Your task to perform on an android device: Go to settings Image 0: 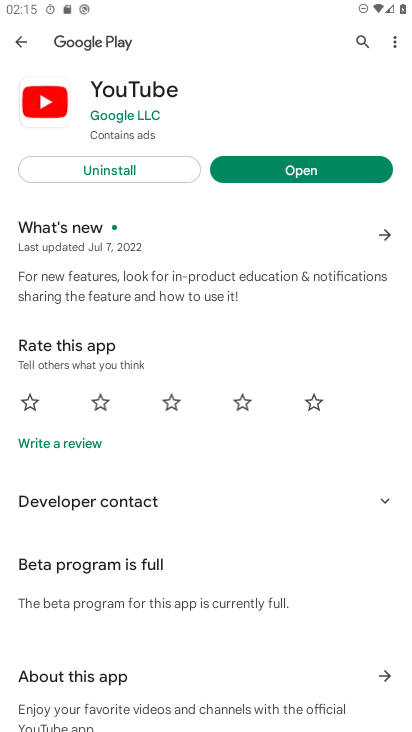
Step 0: press home button
Your task to perform on an android device: Go to settings Image 1: 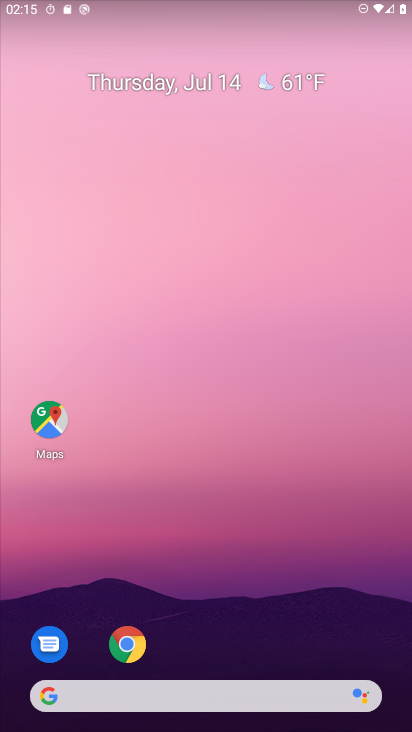
Step 1: drag from (306, 601) to (246, 56)
Your task to perform on an android device: Go to settings Image 2: 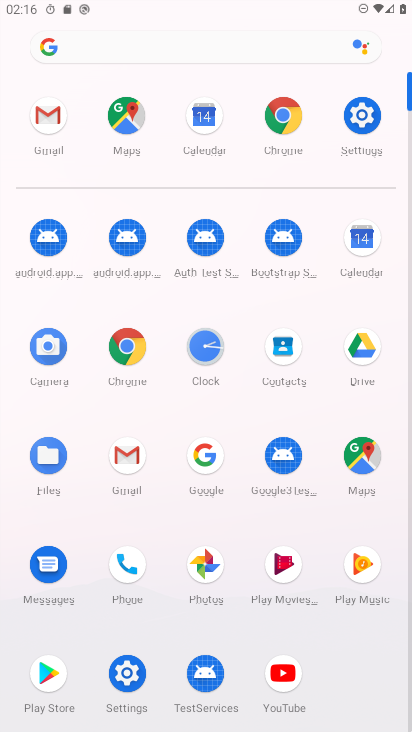
Step 2: click (362, 113)
Your task to perform on an android device: Go to settings Image 3: 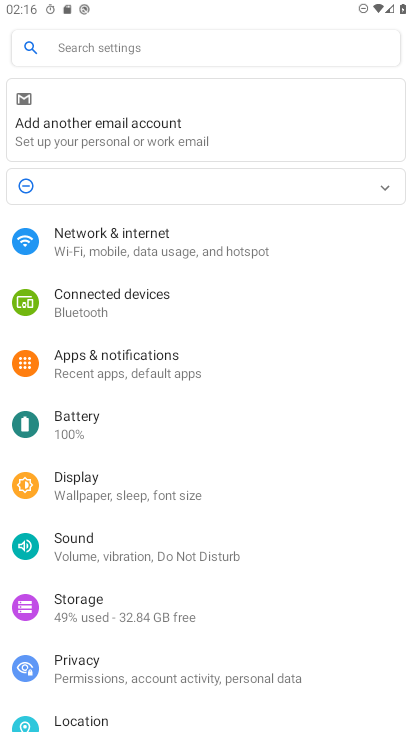
Step 3: task complete